Your task to perform on an android device: toggle sleep mode Image 0: 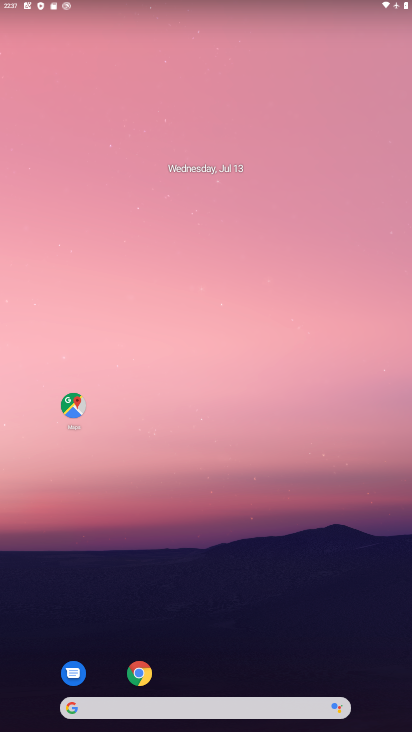
Step 0: drag from (271, 629) to (224, 237)
Your task to perform on an android device: toggle sleep mode Image 1: 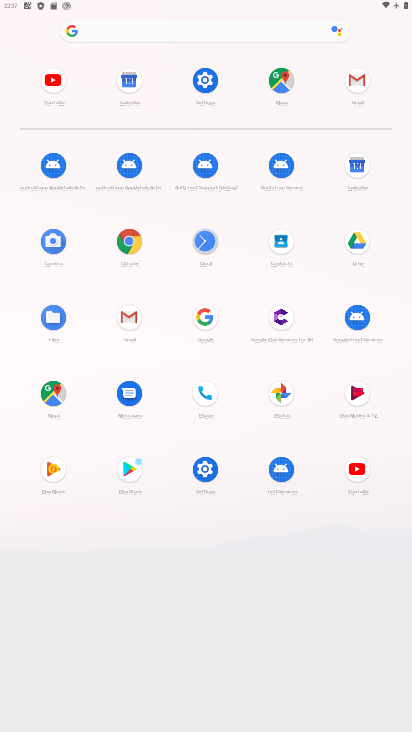
Step 1: click (197, 94)
Your task to perform on an android device: toggle sleep mode Image 2: 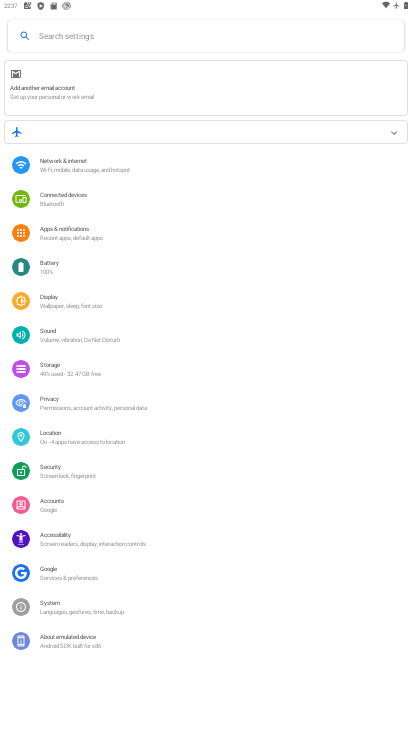
Step 2: click (74, 309)
Your task to perform on an android device: toggle sleep mode Image 3: 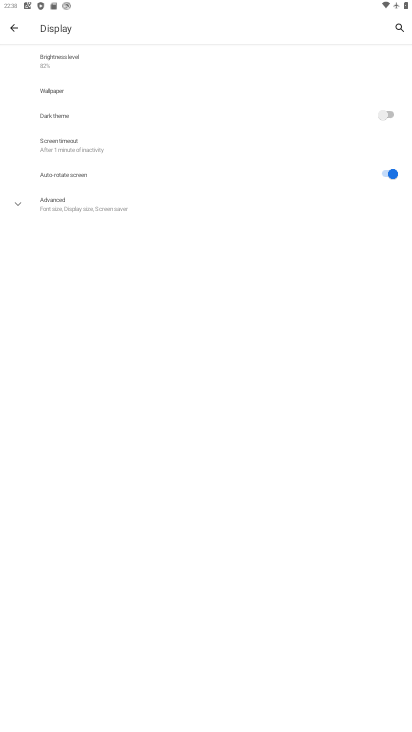
Step 3: click (89, 146)
Your task to perform on an android device: toggle sleep mode Image 4: 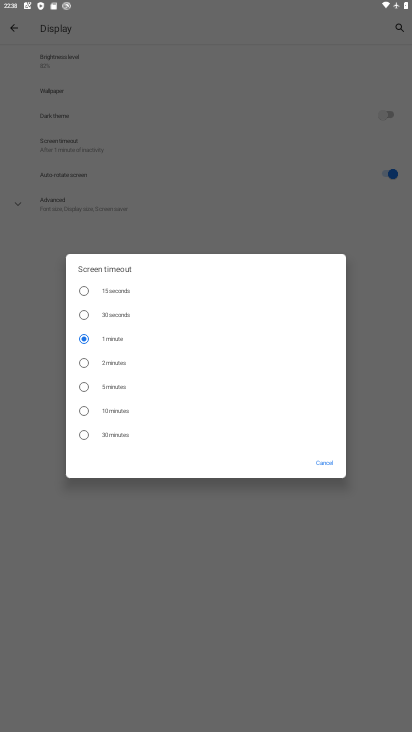
Step 4: click (96, 377)
Your task to perform on an android device: toggle sleep mode Image 5: 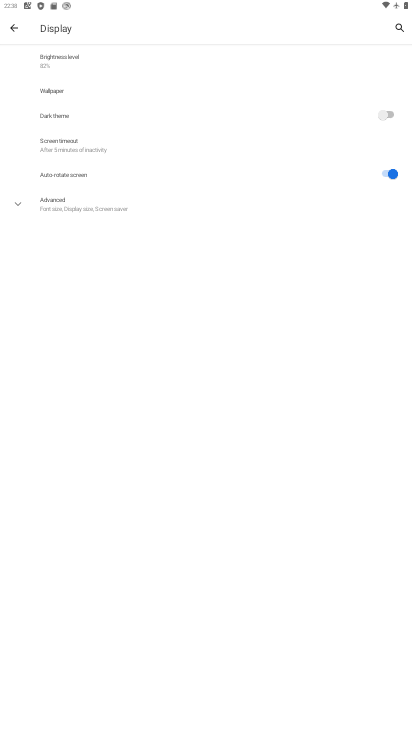
Step 5: task complete